Your task to perform on an android device: delete the emails in spam in the gmail app Image 0: 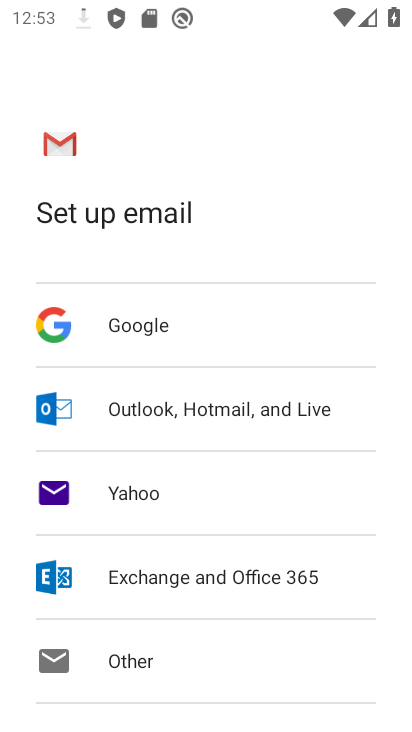
Step 0: press home button
Your task to perform on an android device: delete the emails in spam in the gmail app Image 1: 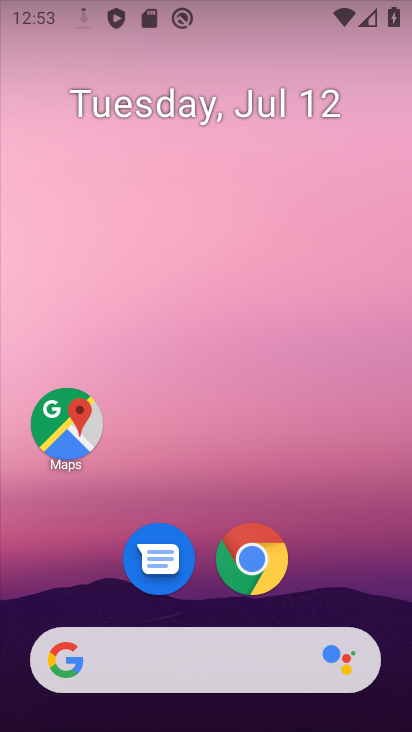
Step 1: drag from (365, 572) to (360, 218)
Your task to perform on an android device: delete the emails in spam in the gmail app Image 2: 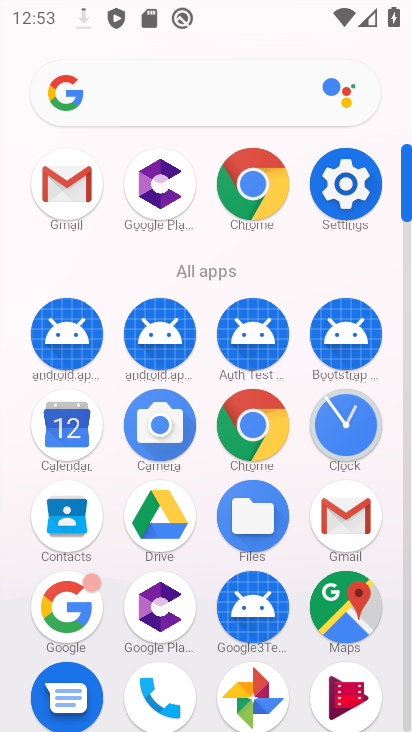
Step 2: click (352, 523)
Your task to perform on an android device: delete the emails in spam in the gmail app Image 3: 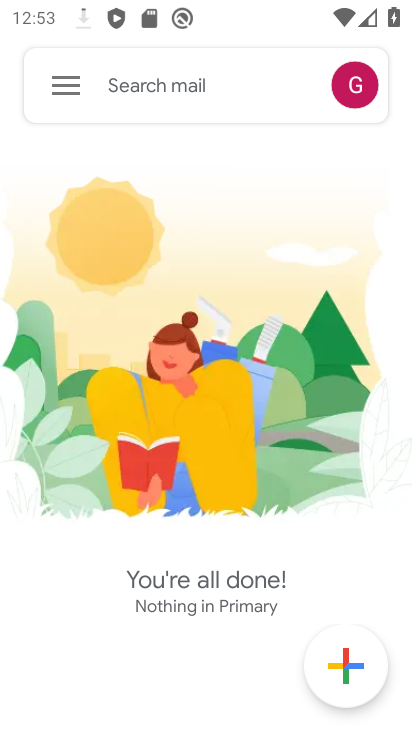
Step 3: click (64, 92)
Your task to perform on an android device: delete the emails in spam in the gmail app Image 4: 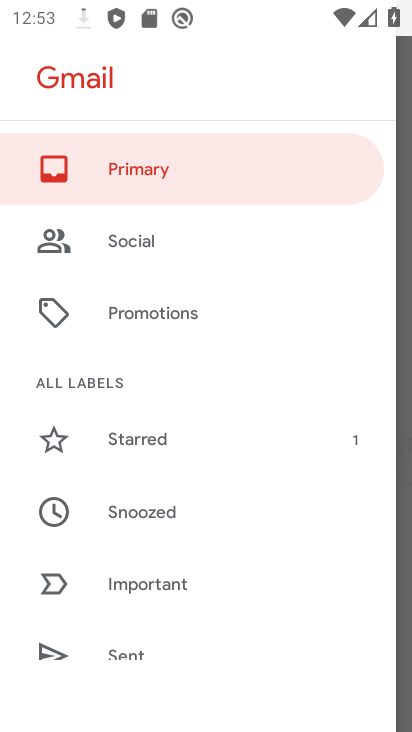
Step 4: drag from (275, 549) to (312, 247)
Your task to perform on an android device: delete the emails in spam in the gmail app Image 5: 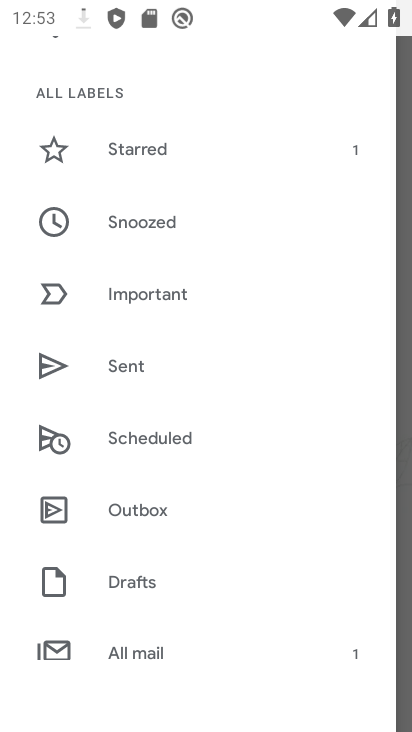
Step 5: drag from (295, 523) to (306, 327)
Your task to perform on an android device: delete the emails in spam in the gmail app Image 6: 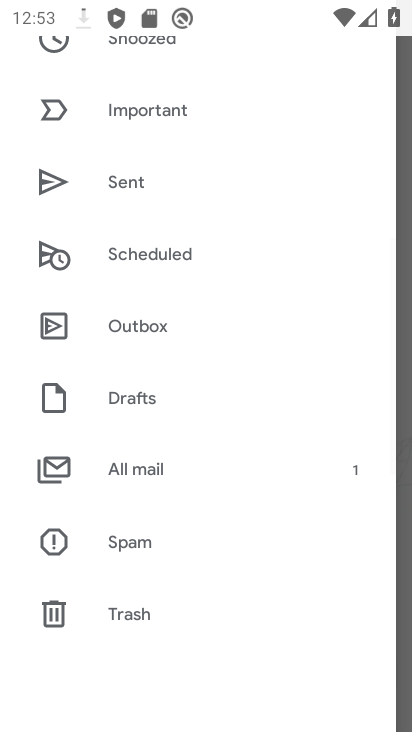
Step 6: drag from (289, 560) to (303, 248)
Your task to perform on an android device: delete the emails in spam in the gmail app Image 7: 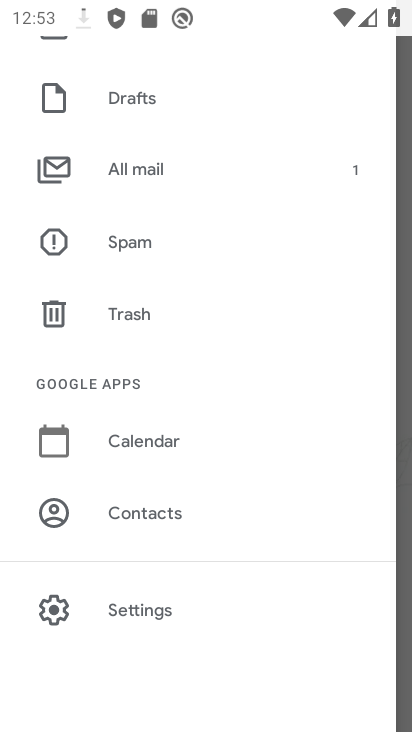
Step 7: drag from (294, 573) to (299, 331)
Your task to perform on an android device: delete the emails in spam in the gmail app Image 8: 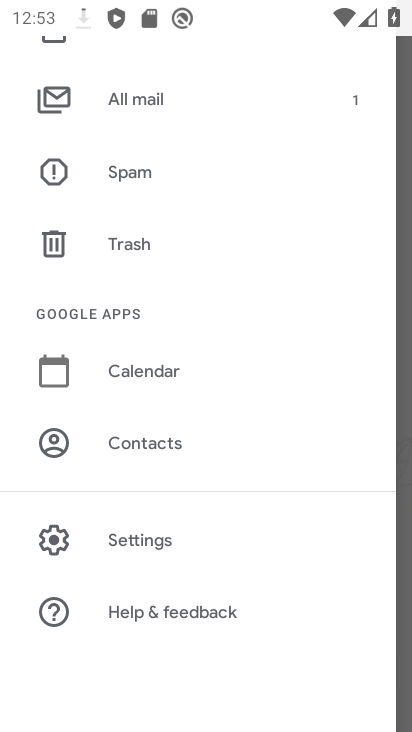
Step 8: drag from (289, 558) to (294, 394)
Your task to perform on an android device: delete the emails in spam in the gmail app Image 9: 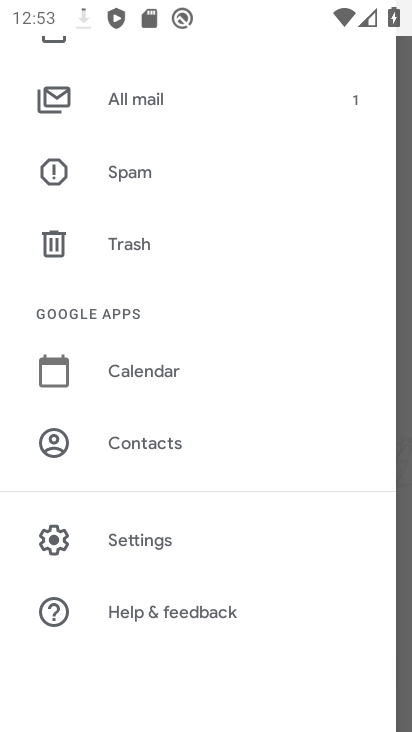
Step 9: click (150, 176)
Your task to perform on an android device: delete the emails in spam in the gmail app Image 10: 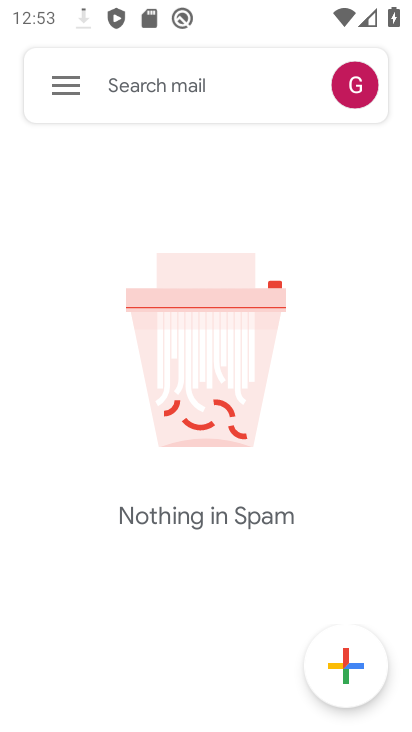
Step 10: task complete